Your task to perform on an android device: Open the calendar and show me this week's events? Image 0: 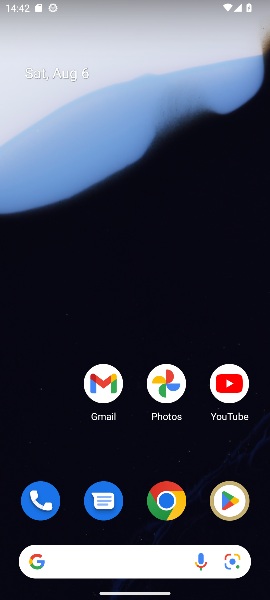
Step 0: press home button
Your task to perform on an android device: Open the calendar and show me this week's events? Image 1: 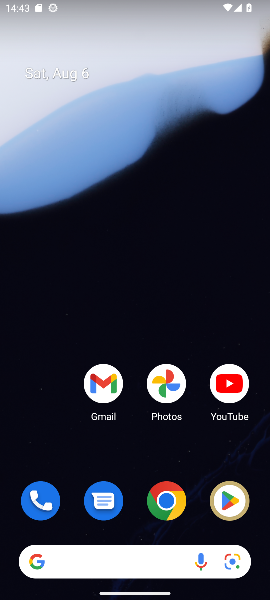
Step 1: drag from (148, 524) to (49, 0)
Your task to perform on an android device: Open the calendar and show me this week's events? Image 2: 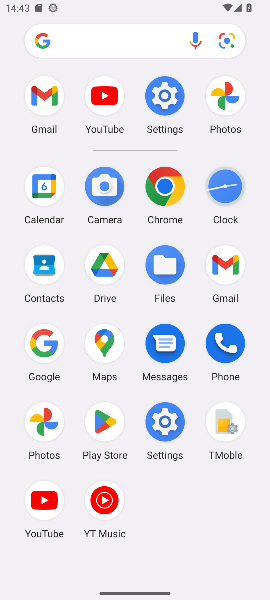
Step 2: click (35, 197)
Your task to perform on an android device: Open the calendar and show me this week's events? Image 3: 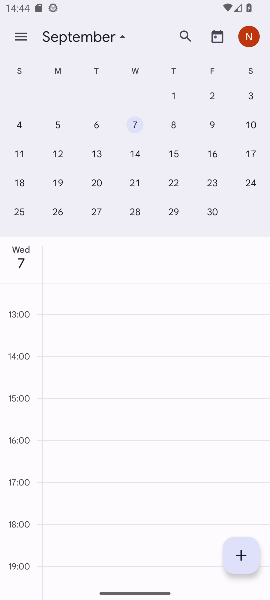
Step 3: click (25, 39)
Your task to perform on an android device: Open the calendar and show me this week's events? Image 4: 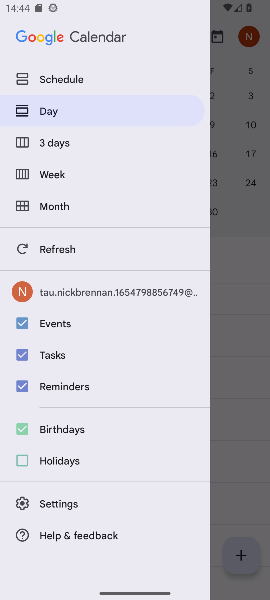
Step 4: click (59, 177)
Your task to perform on an android device: Open the calendar and show me this week's events? Image 5: 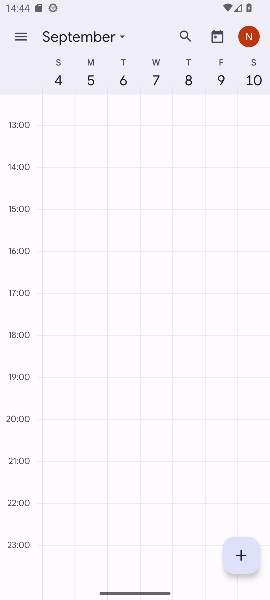
Step 5: task complete